Your task to perform on an android device: Open Youtube and go to "Your channel" Image 0: 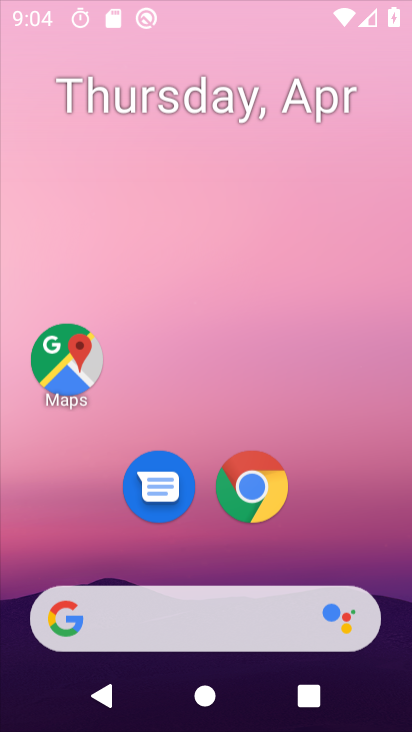
Step 0: drag from (389, 549) to (386, 132)
Your task to perform on an android device: Open Youtube and go to "Your channel" Image 1: 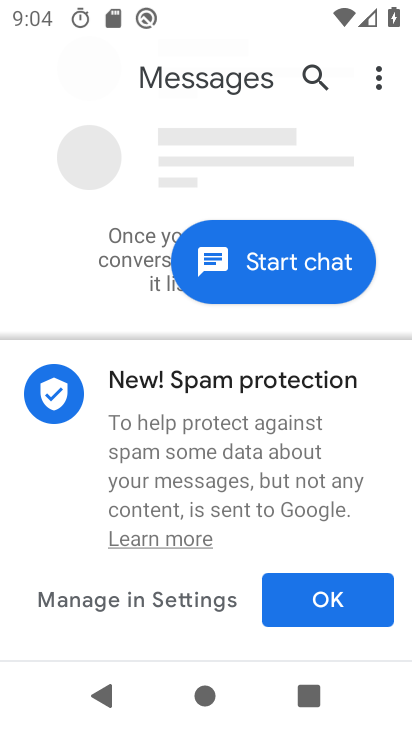
Step 1: press home button
Your task to perform on an android device: Open Youtube and go to "Your channel" Image 2: 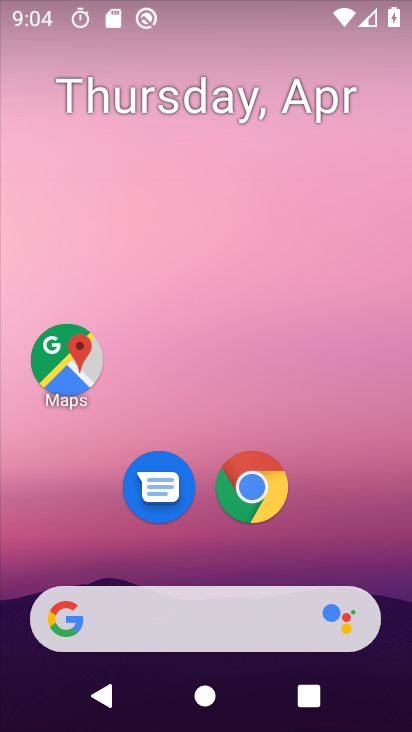
Step 2: drag from (355, 436) to (376, 143)
Your task to perform on an android device: Open Youtube and go to "Your channel" Image 3: 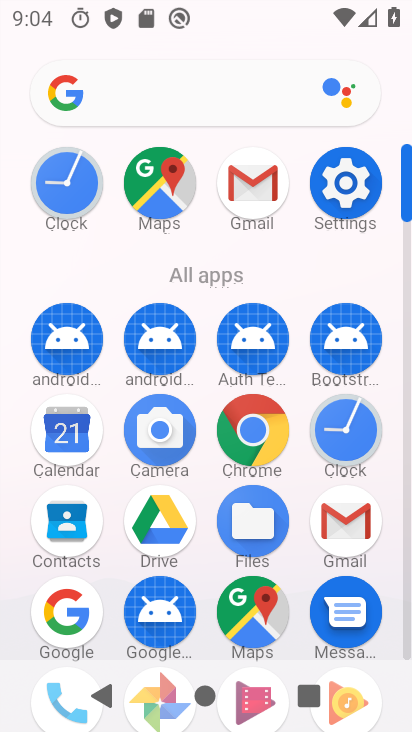
Step 3: drag from (302, 564) to (306, 237)
Your task to perform on an android device: Open Youtube and go to "Your channel" Image 4: 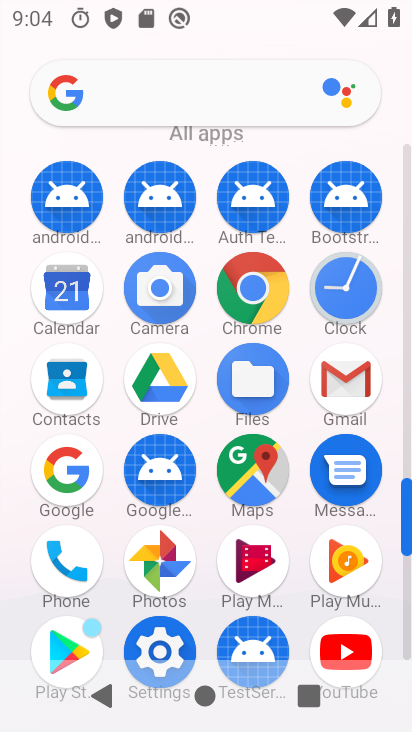
Step 4: click (346, 647)
Your task to perform on an android device: Open Youtube and go to "Your channel" Image 5: 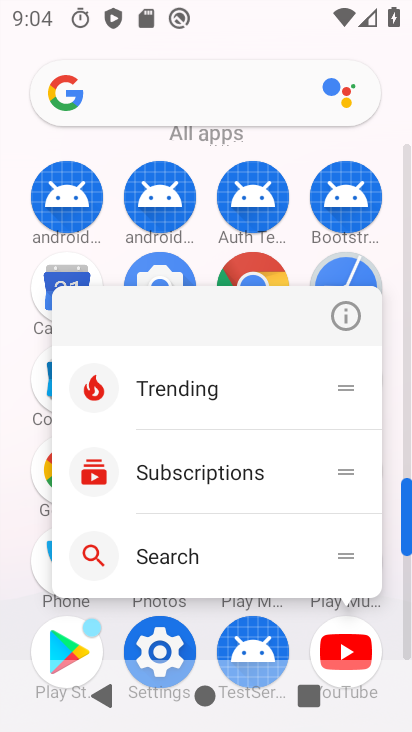
Step 5: click (346, 636)
Your task to perform on an android device: Open Youtube and go to "Your channel" Image 6: 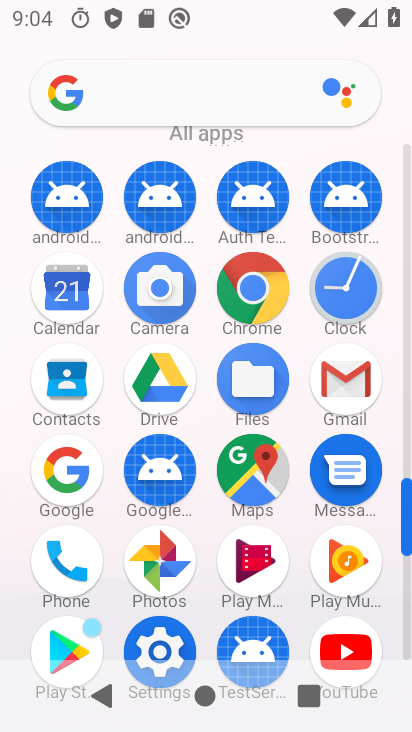
Step 6: click (345, 651)
Your task to perform on an android device: Open Youtube and go to "Your channel" Image 7: 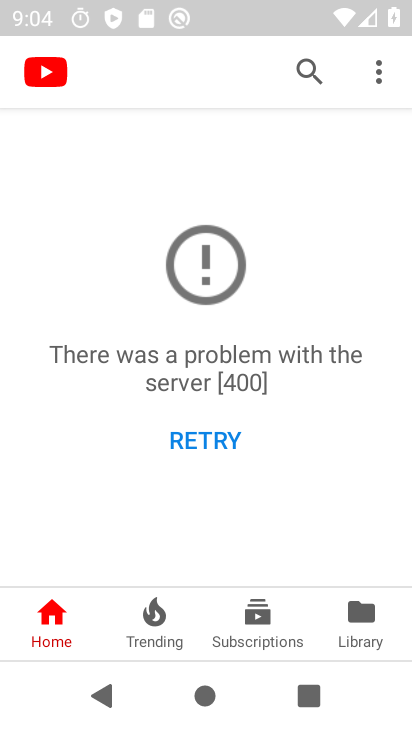
Step 7: click (383, 71)
Your task to perform on an android device: Open Youtube and go to "Your channel" Image 8: 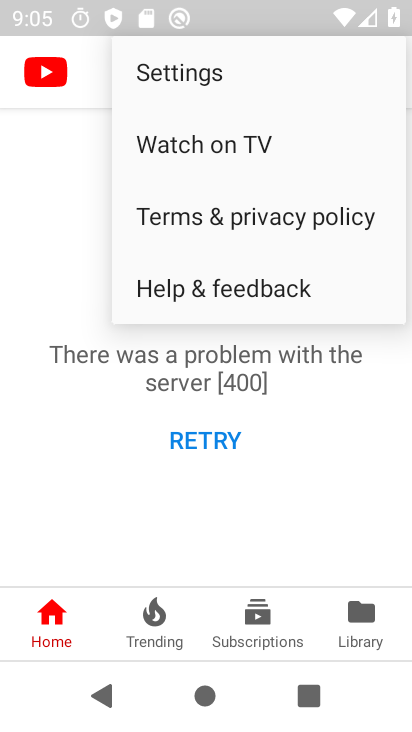
Step 8: task complete